Your task to perform on an android device: open a new tab in the chrome app Image 0: 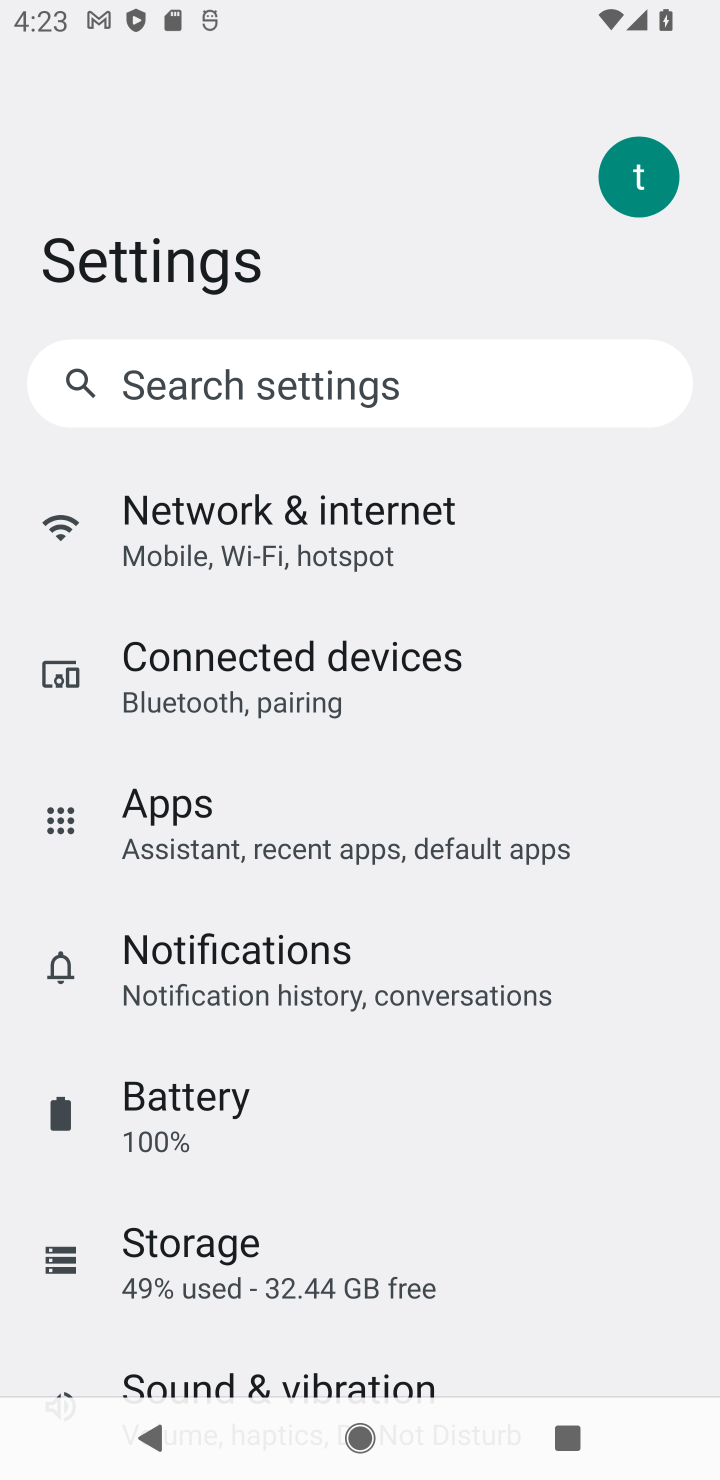
Step 0: click (388, 952)
Your task to perform on an android device: open a new tab in the chrome app Image 1: 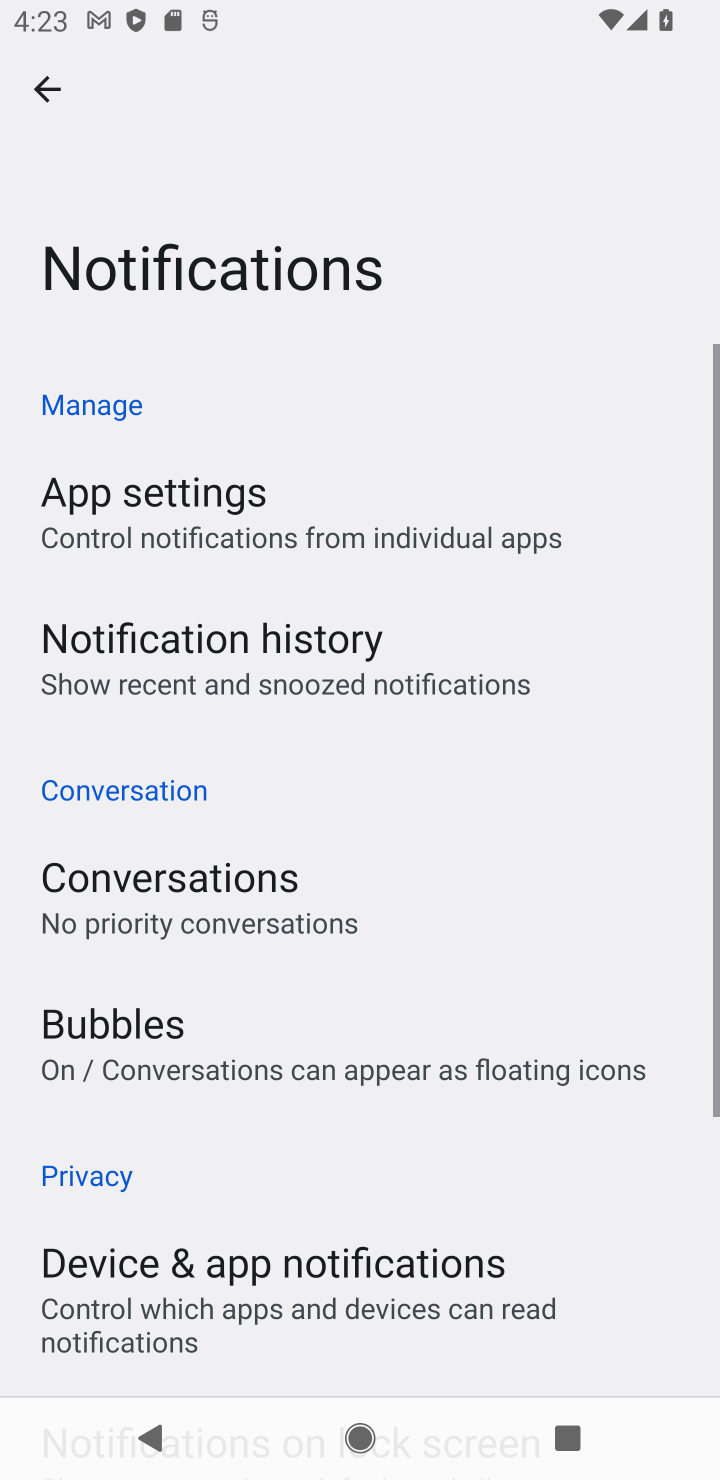
Step 1: press home button
Your task to perform on an android device: open a new tab in the chrome app Image 2: 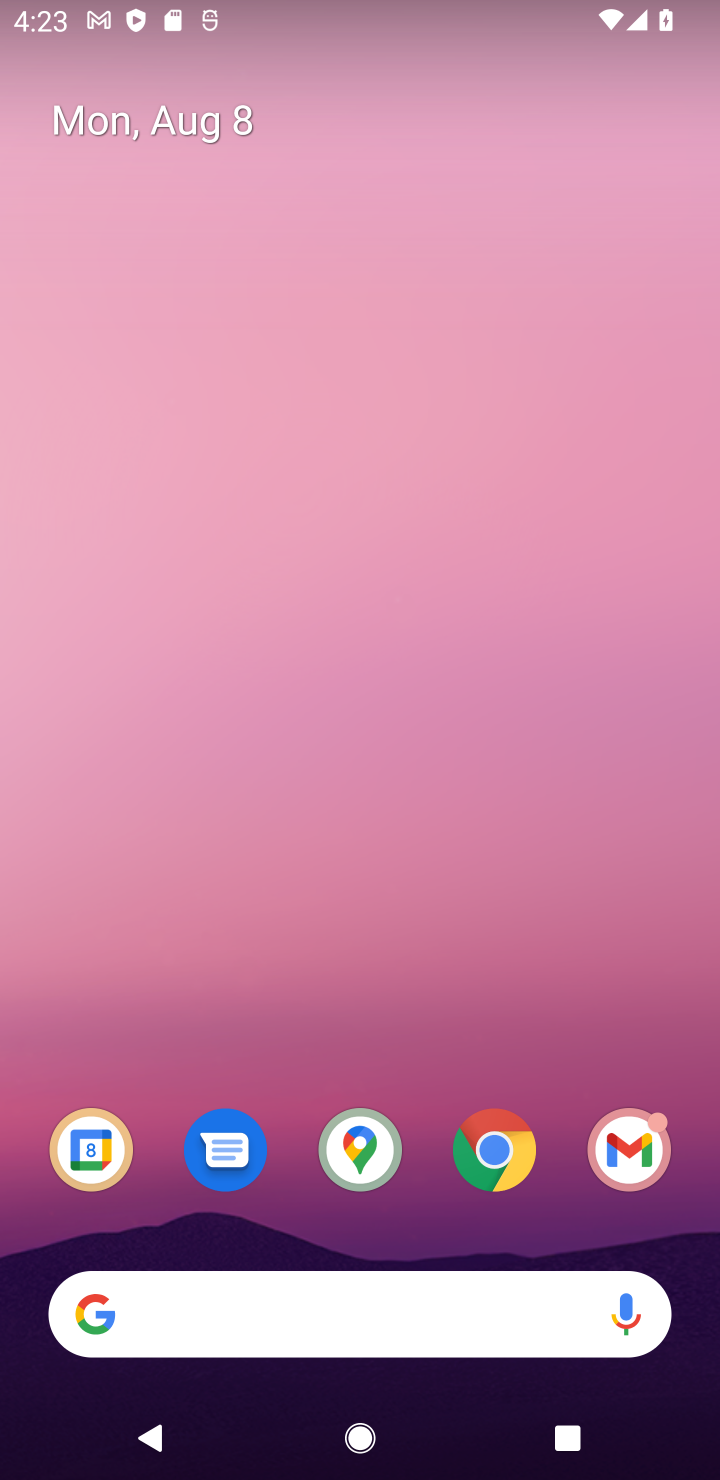
Step 2: click (518, 1173)
Your task to perform on an android device: open a new tab in the chrome app Image 3: 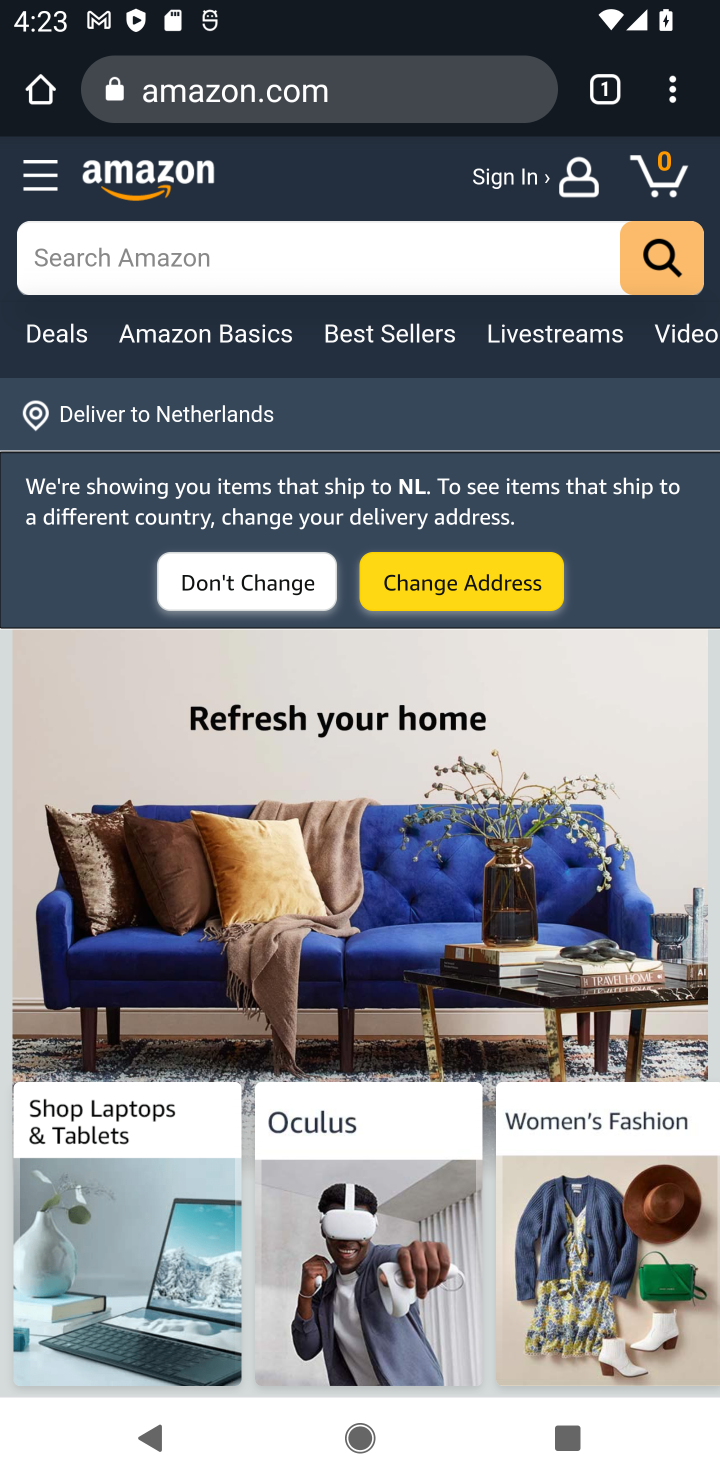
Step 3: click (680, 106)
Your task to perform on an android device: open a new tab in the chrome app Image 4: 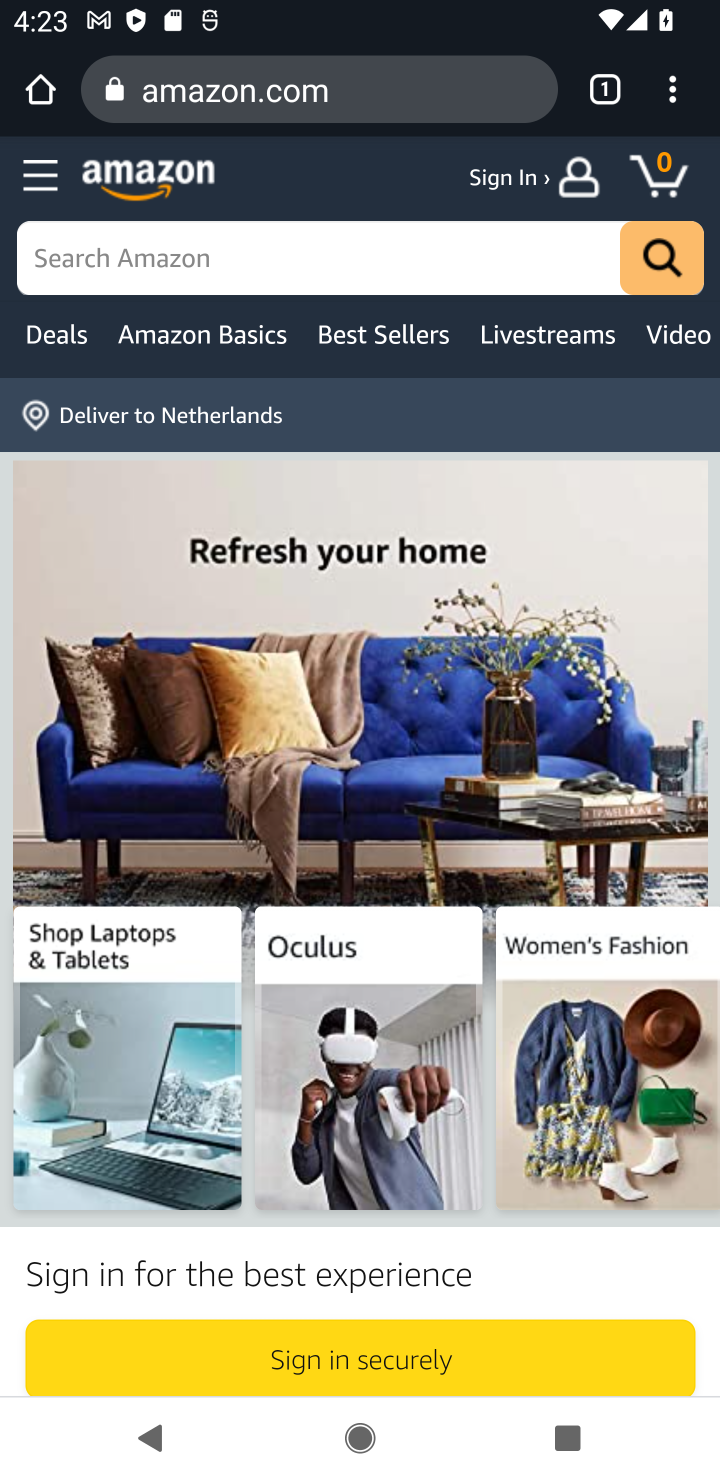
Step 4: click (680, 106)
Your task to perform on an android device: open a new tab in the chrome app Image 5: 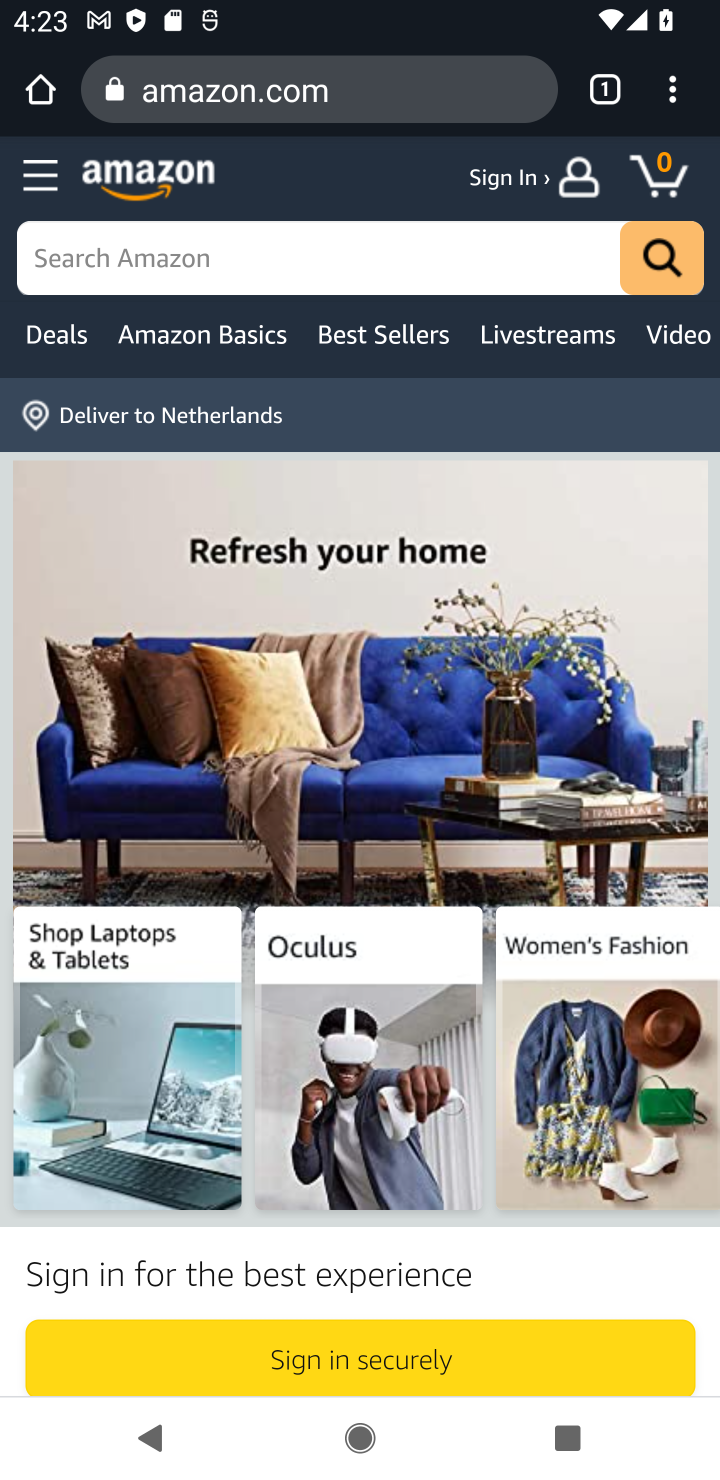
Step 5: click (666, 109)
Your task to perform on an android device: open a new tab in the chrome app Image 6: 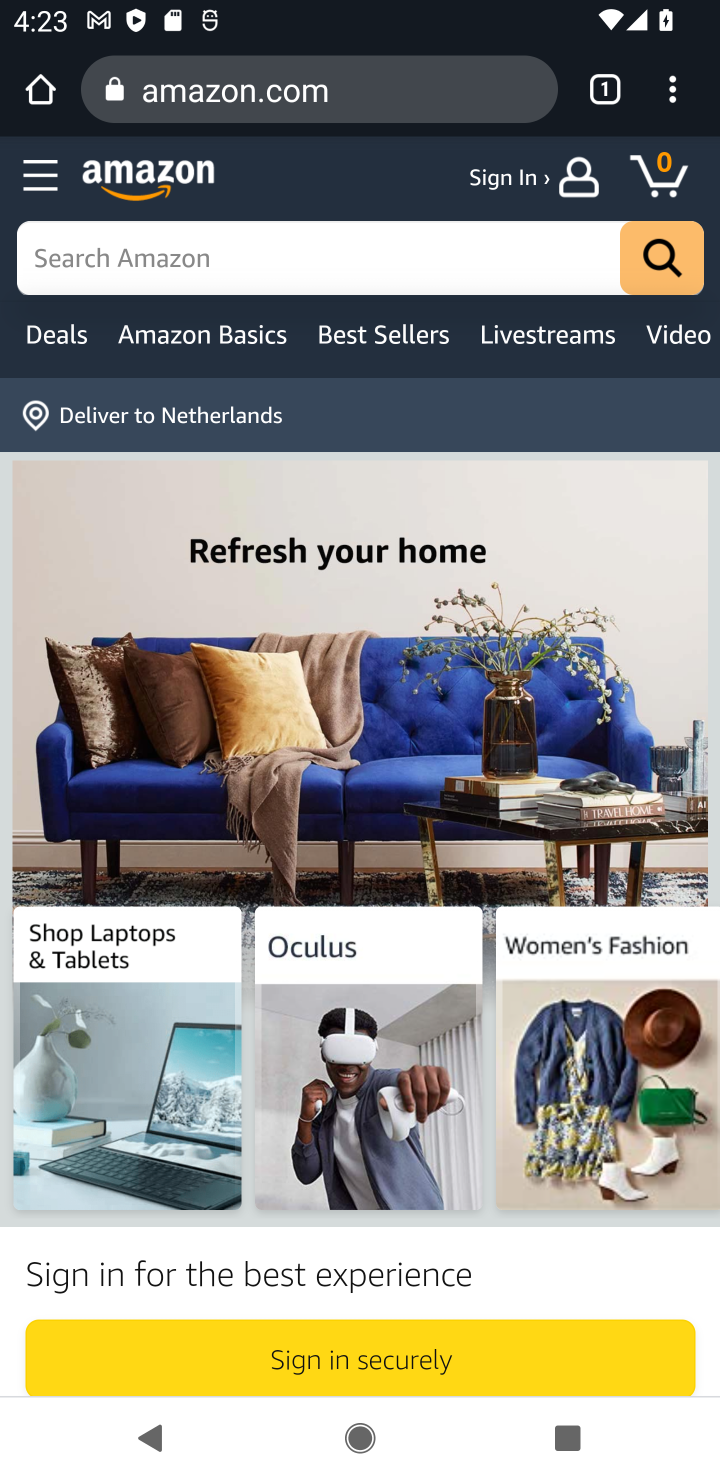
Step 6: task complete